Your task to perform on an android device: delete browsing data in the chrome app Image 0: 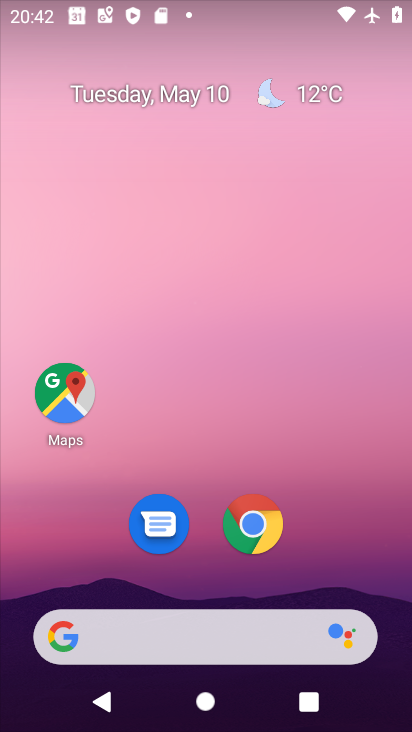
Step 0: click (263, 518)
Your task to perform on an android device: delete browsing data in the chrome app Image 1: 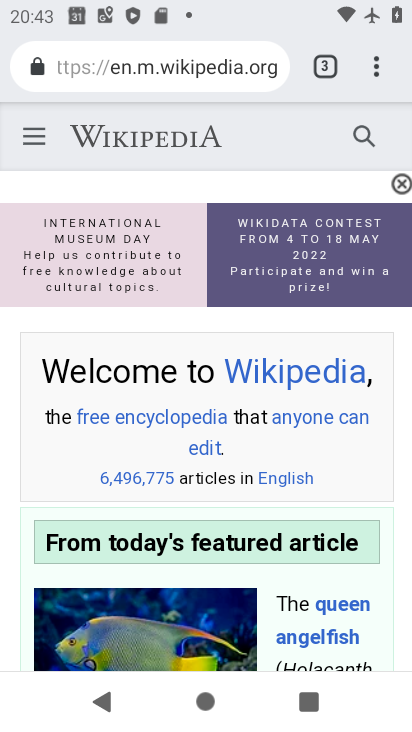
Step 1: click (378, 77)
Your task to perform on an android device: delete browsing data in the chrome app Image 2: 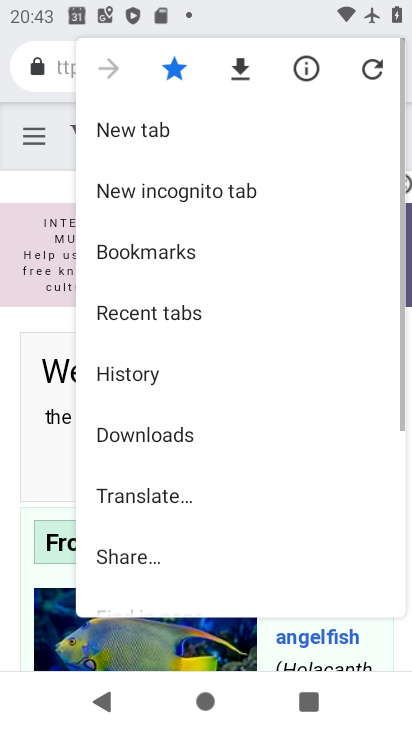
Step 2: click (378, 77)
Your task to perform on an android device: delete browsing data in the chrome app Image 3: 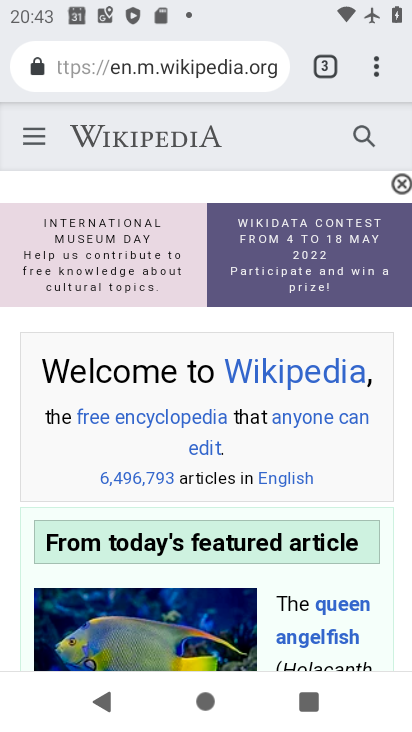
Step 3: click (373, 61)
Your task to perform on an android device: delete browsing data in the chrome app Image 4: 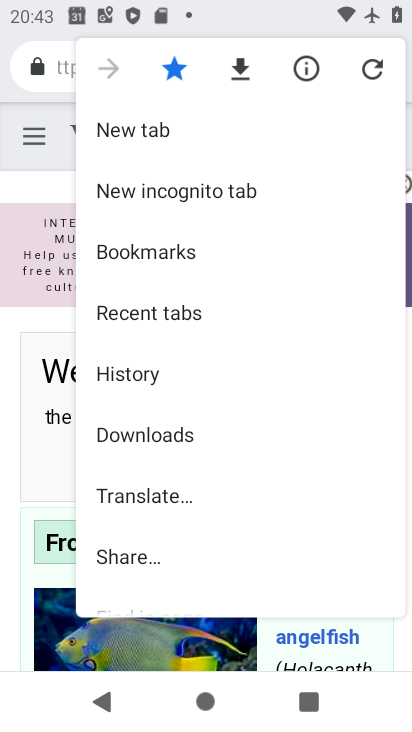
Step 4: click (163, 367)
Your task to perform on an android device: delete browsing data in the chrome app Image 5: 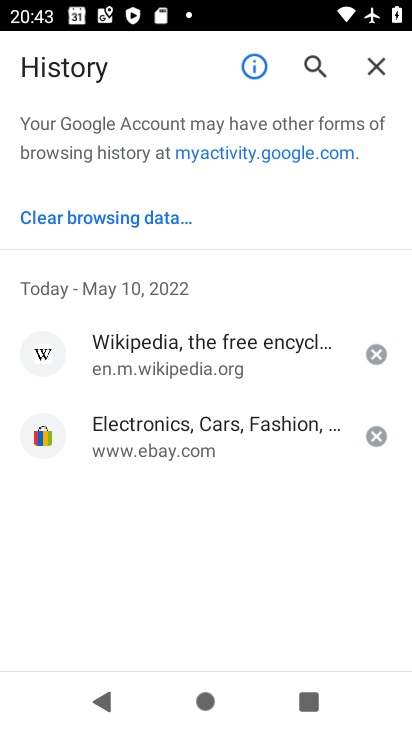
Step 5: click (149, 208)
Your task to perform on an android device: delete browsing data in the chrome app Image 6: 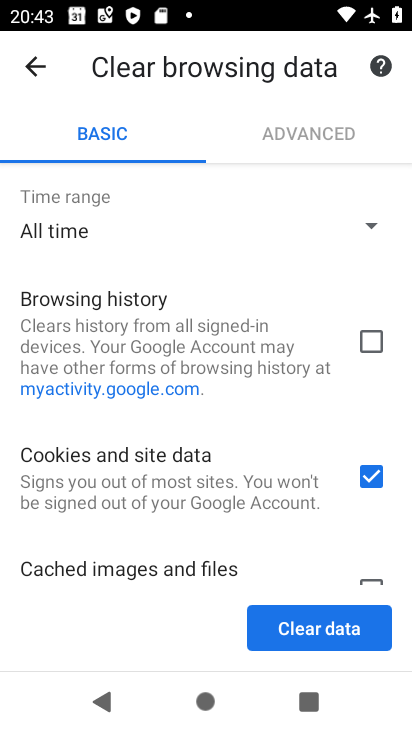
Step 6: click (363, 331)
Your task to perform on an android device: delete browsing data in the chrome app Image 7: 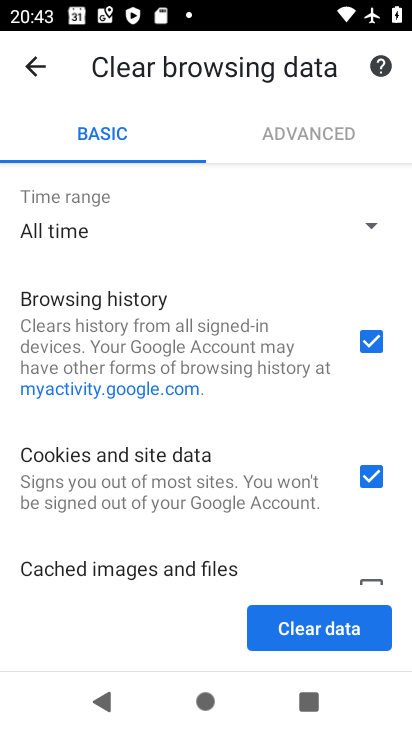
Step 7: click (377, 566)
Your task to perform on an android device: delete browsing data in the chrome app Image 8: 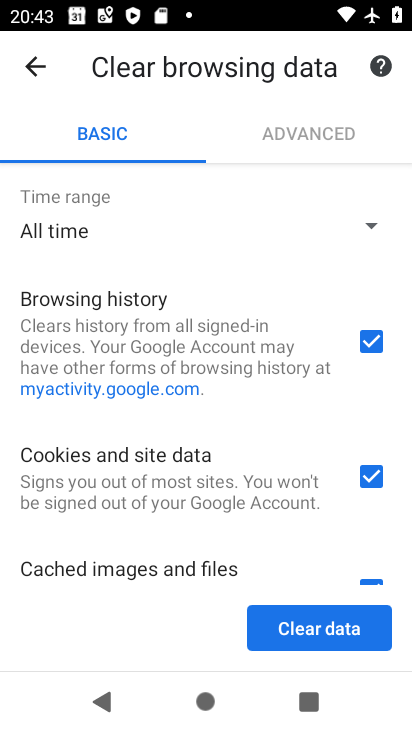
Step 8: click (367, 623)
Your task to perform on an android device: delete browsing data in the chrome app Image 9: 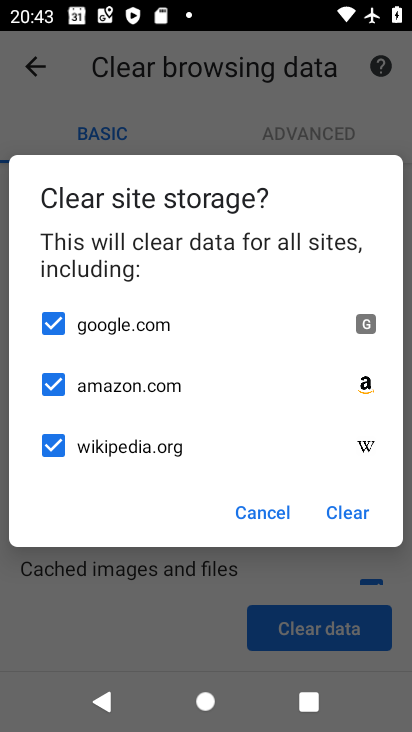
Step 9: click (350, 497)
Your task to perform on an android device: delete browsing data in the chrome app Image 10: 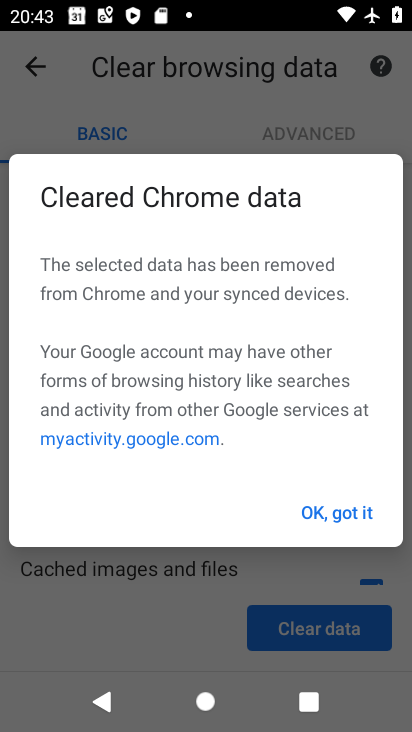
Step 10: click (350, 497)
Your task to perform on an android device: delete browsing data in the chrome app Image 11: 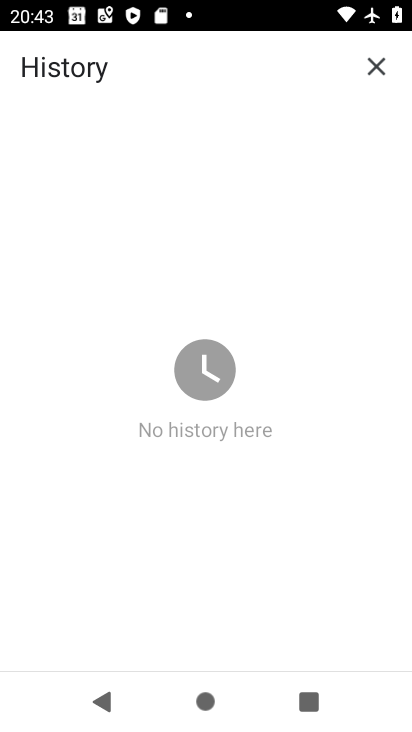
Step 11: task complete